Your task to perform on an android device: set the stopwatch Image 0: 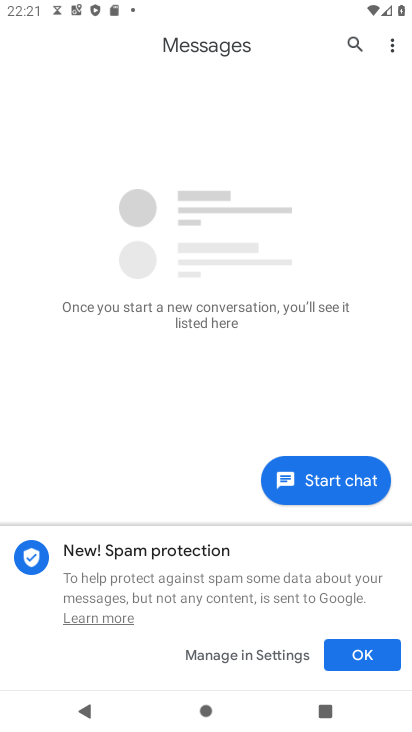
Step 0: press home button
Your task to perform on an android device: set the stopwatch Image 1: 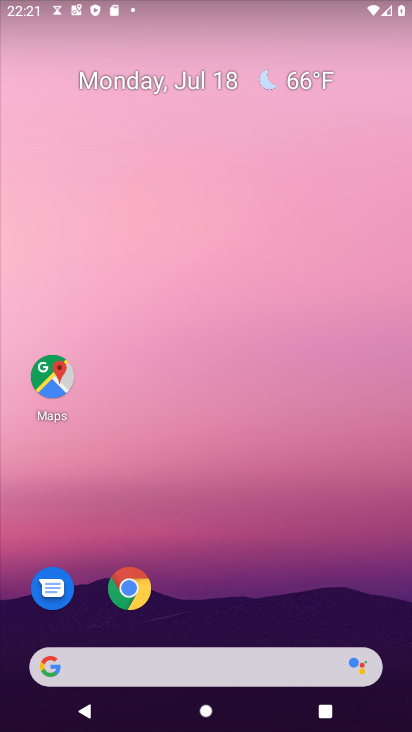
Step 1: drag from (172, 660) to (365, 91)
Your task to perform on an android device: set the stopwatch Image 2: 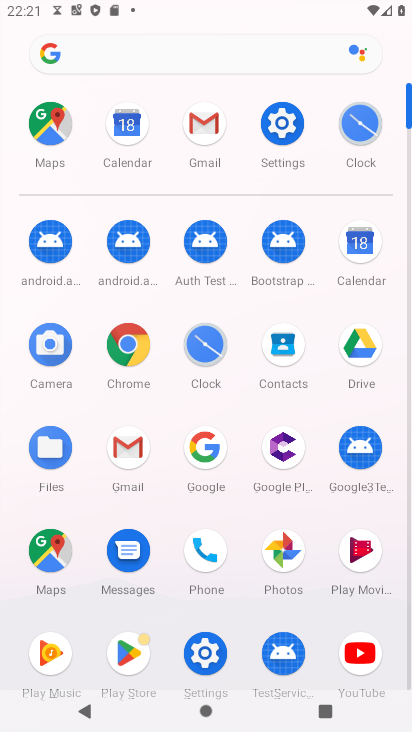
Step 2: click (210, 354)
Your task to perform on an android device: set the stopwatch Image 3: 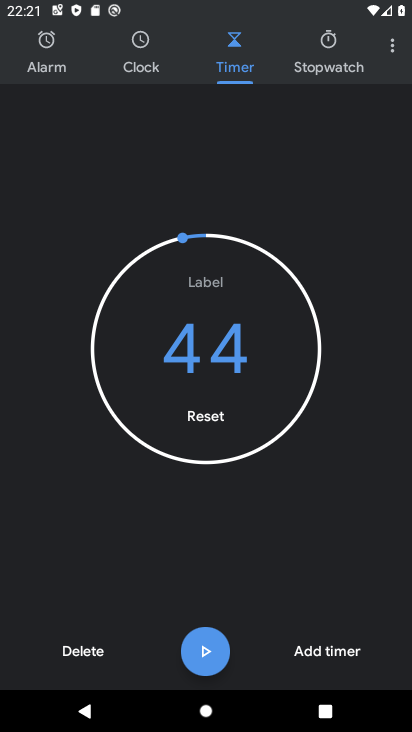
Step 3: click (320, 68)
Your task to perform on an android device: set the stopwatch Image 4: 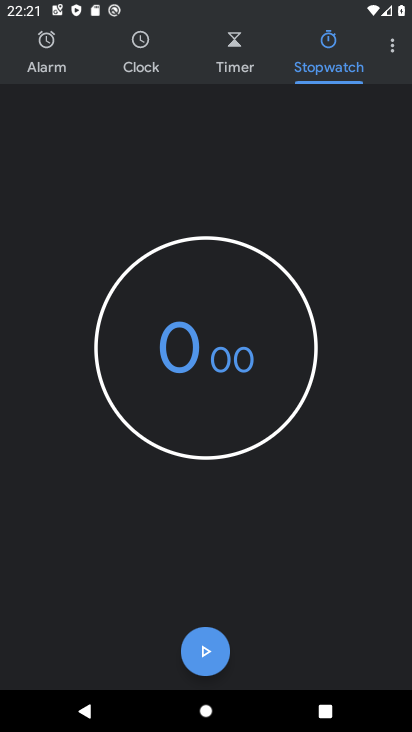
Step 4: click (194, 342)
Your task to perform on an android device: set the stopwatch Image 5: 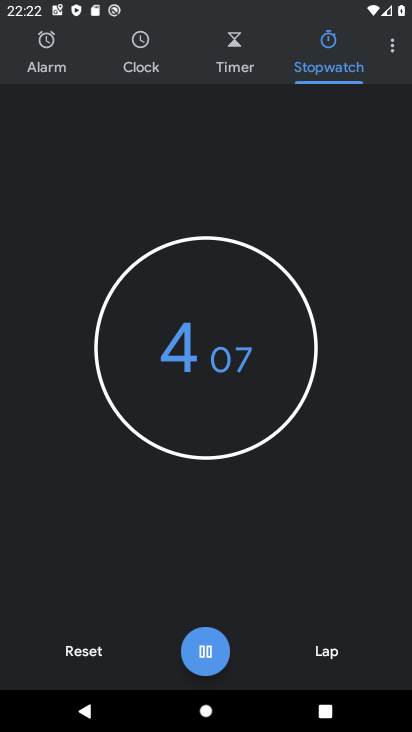
Step 5: click (213, 332)
Your task to perform on an android device: set the stopwatch Image 6: 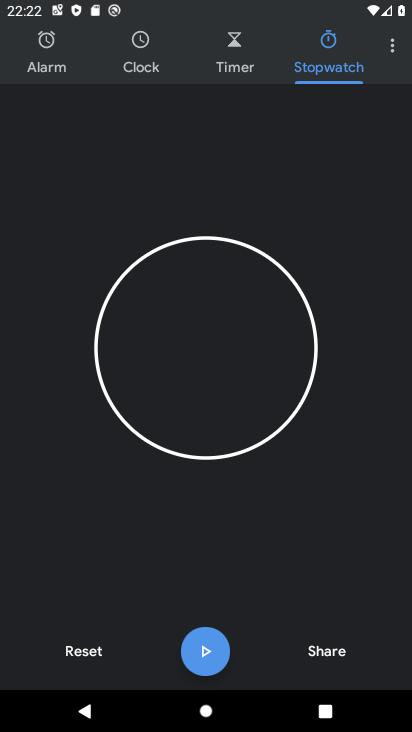
Step 6: task complete